Your task to perform on an android device: visit the assistant section in the google photos Image 0: 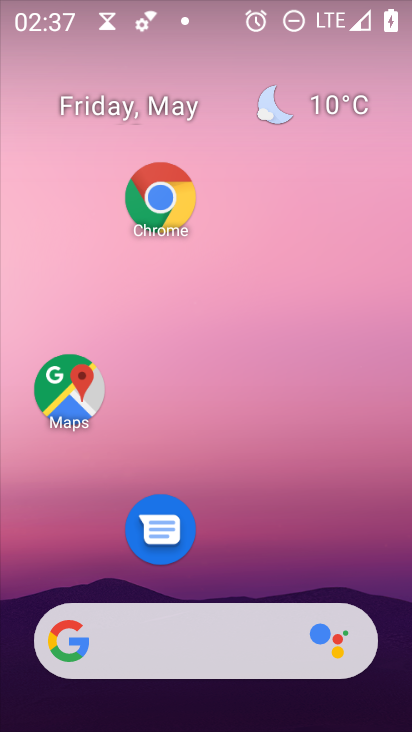
Step 0: click (259, 202)
Your task to perform on an android device: visit the assistant section in the google photos Image 1: 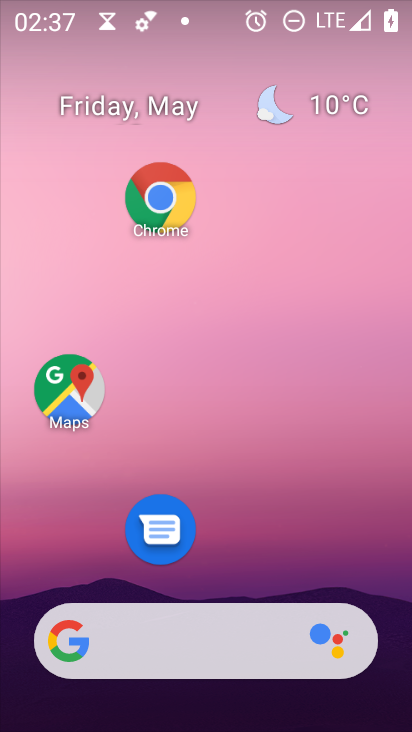
Step 1: drag from (228, 620) to (237, 341)
Your task to perform on an android device: visit the assistant section in the google photos Image 2: 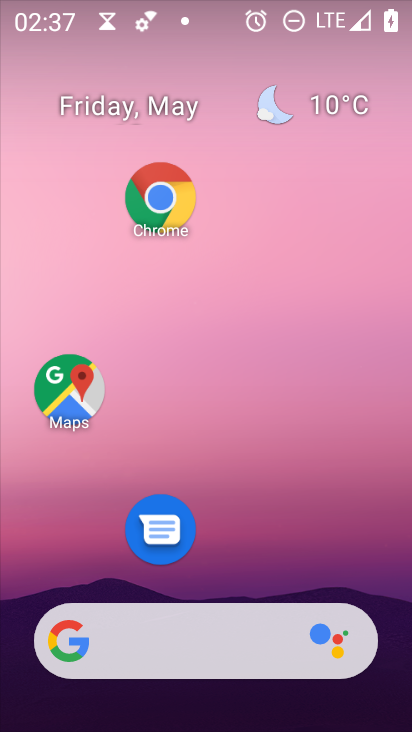
Step 2: drag from (216, 645) to (207, 341)
Your task to perform on an android device: visit the assistant section in the google photos Image 3: 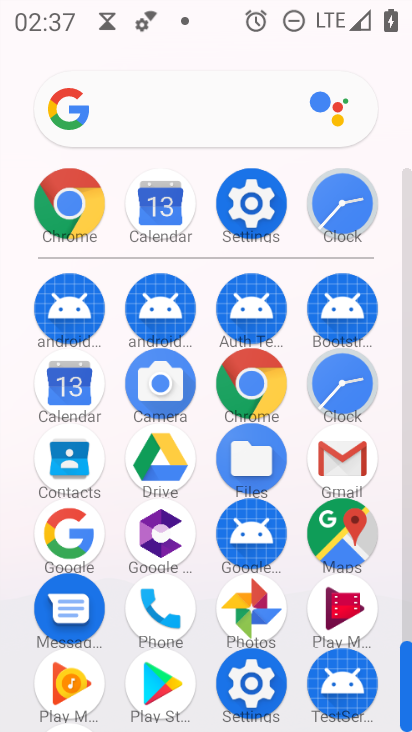
Step 3: click (250, 612)
Your task to perform on an android device: visit the assistant section in the google photos Image 4: 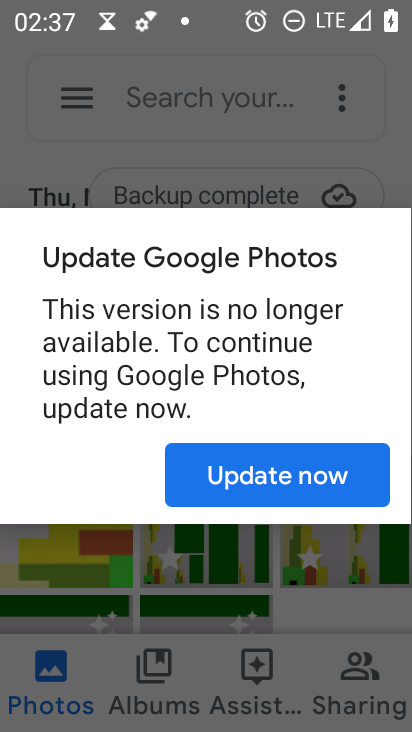
Step 4: click (326, 473)
Your task to perform on an android device: visit the assistant section in the google photos Image 5: 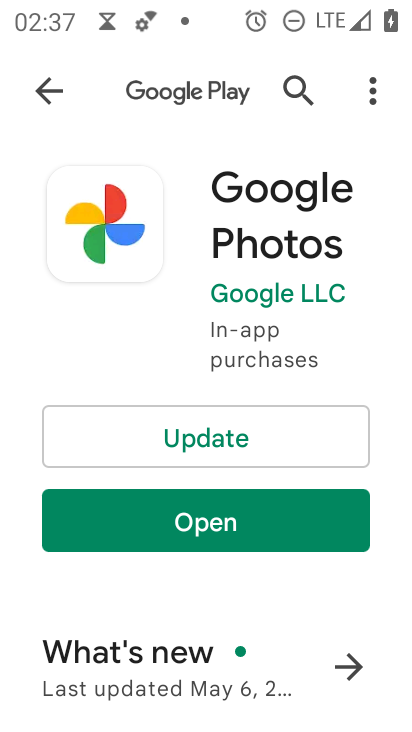
Step 5: press back button
Your task to perform on an android device: visit the assistant section in the google photos Image 6: 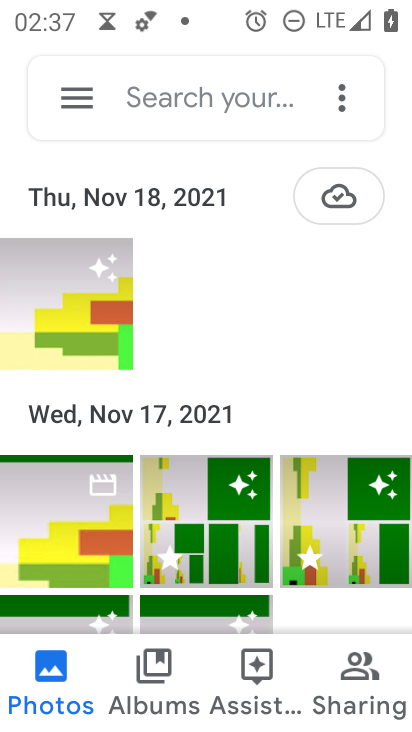
Step 6: click (247, 667)
Your task to perform on an android device: visit the assistant section in the google photos Image 7: 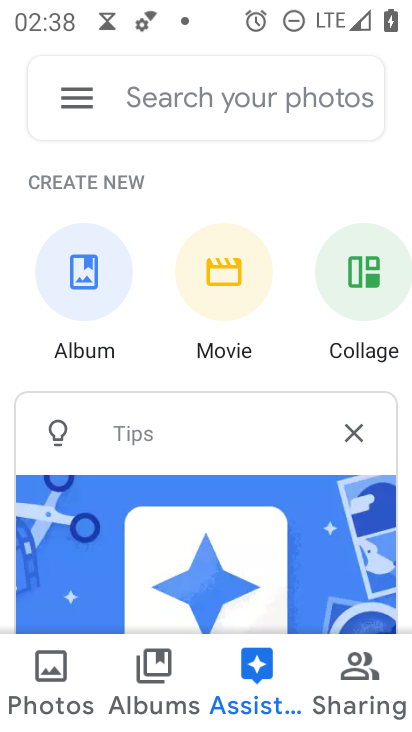
Step 7: task complete